Your task to perform on an android device: open app "Microsoft Excel" (install if not already installed) and go to login screen Image 0: 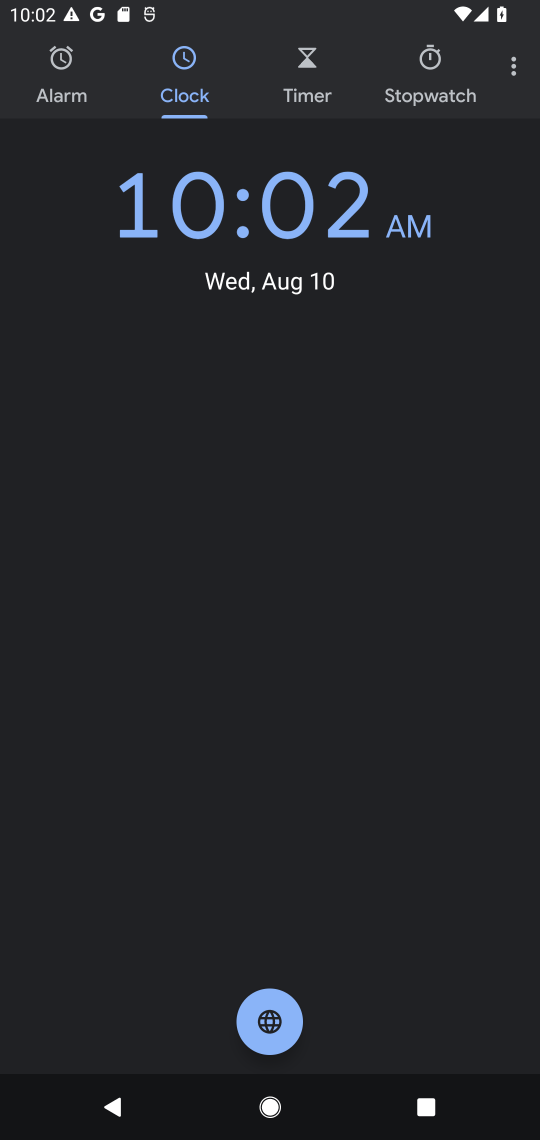
Step 0: press home button
Your task to perform on an android device: open app "Microsoft Excel" (install if not already installed) and go to login screen Image 1: 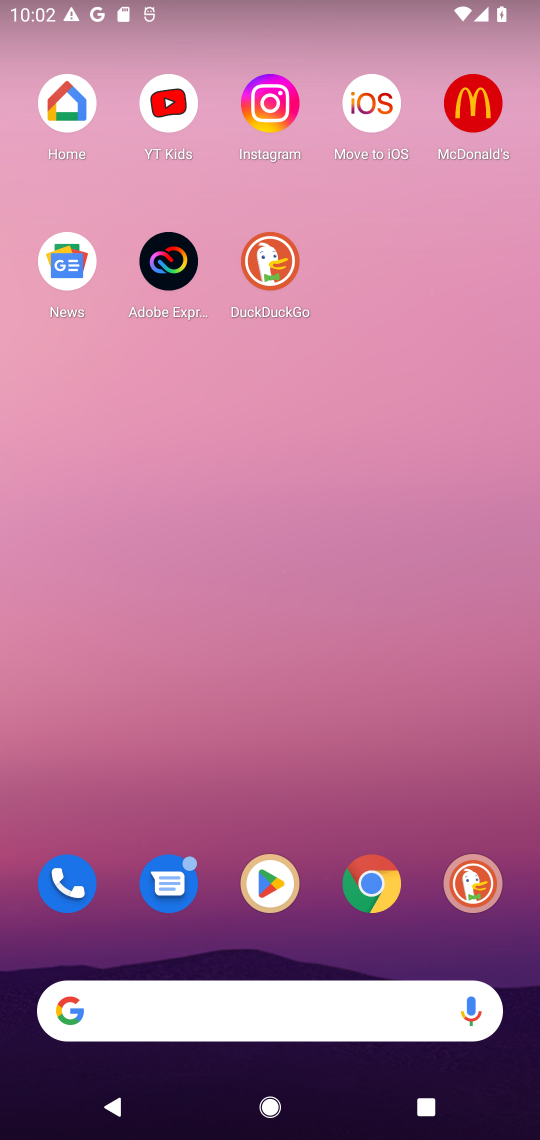
Step 1: drag from (418, 708) to (407, 69)
Your task to perform on an android device: open app "Microsoft Excel" (install if not already installed) and go to login screen Image 2: 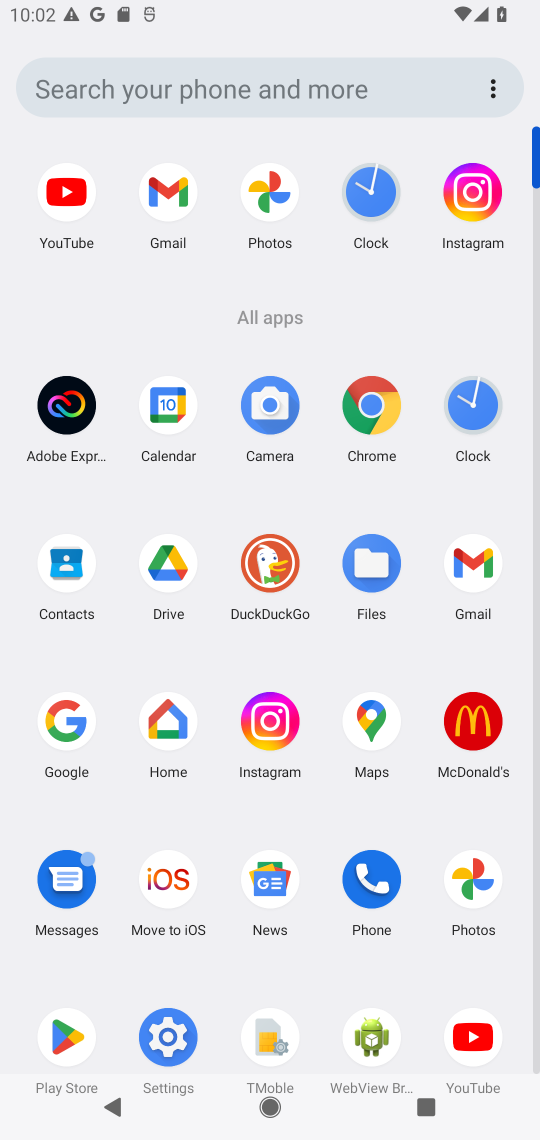
Step 2: click (55, 1030)
Your task to perform on an android device: open app "Microsoft Excel" (install if not already installed) and go to login screen Image 3: 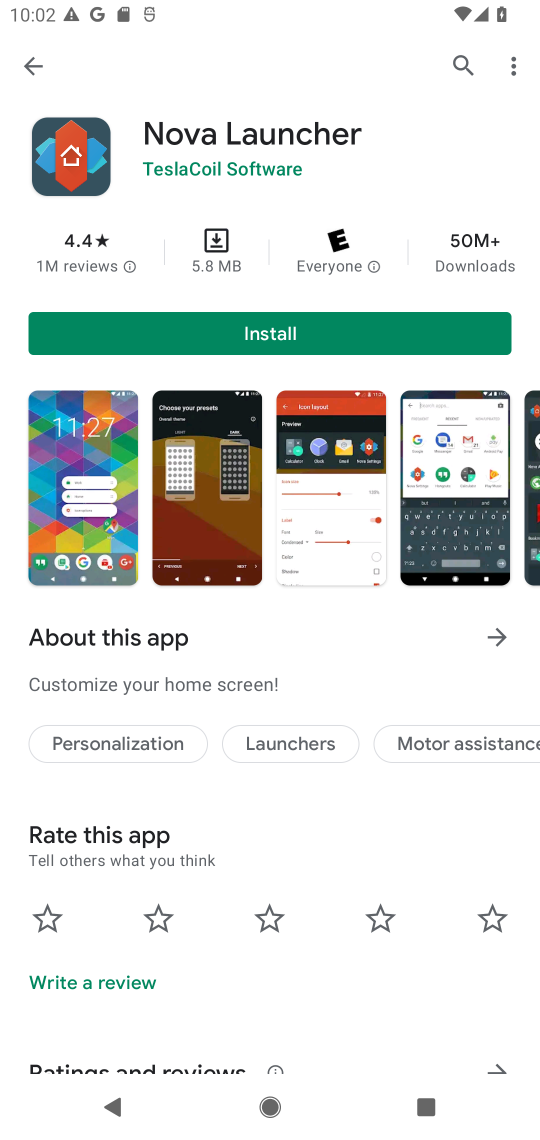
Step 3: click (459, 61)
Your task to perform on an android device: open app "Microsoft Excel" (install if not already installed) and go to login screen Image 4: 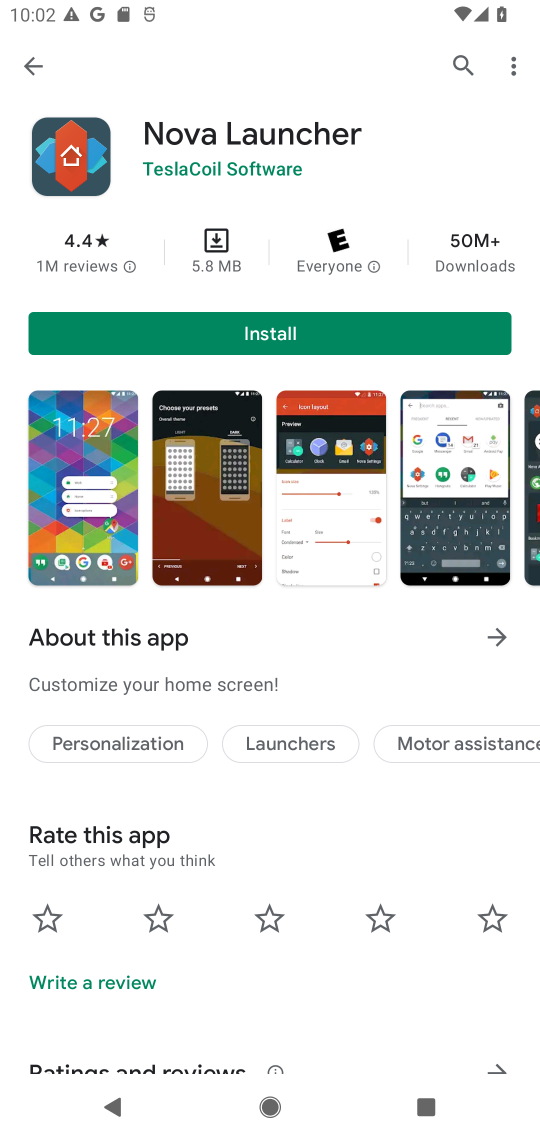
Step 4: press back button
Your task to perform on an android device: open app "Microsoft Excel" (install if not already installed) and go to login screen Image 5: 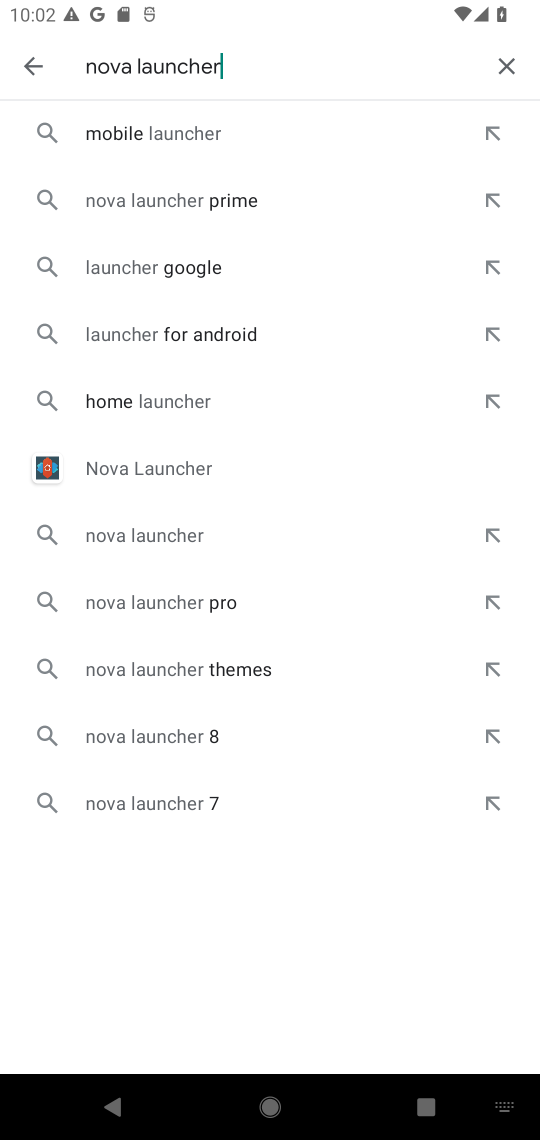
Step 5: click (509, 56)
Your task to perform on an android device: open app "Microsoft Excel" (install if not already installed) and go to login screen Image 6: 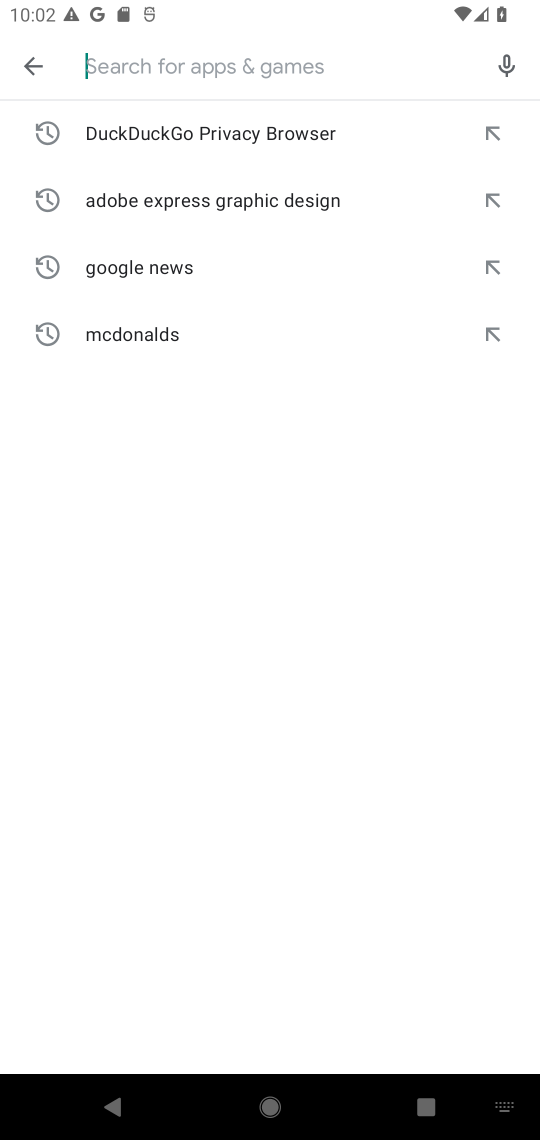
Step 6: press enter
Your task to perform on an android device: open app "Microsoft Excel" (install if not already installed) and go to login screen Image 7: 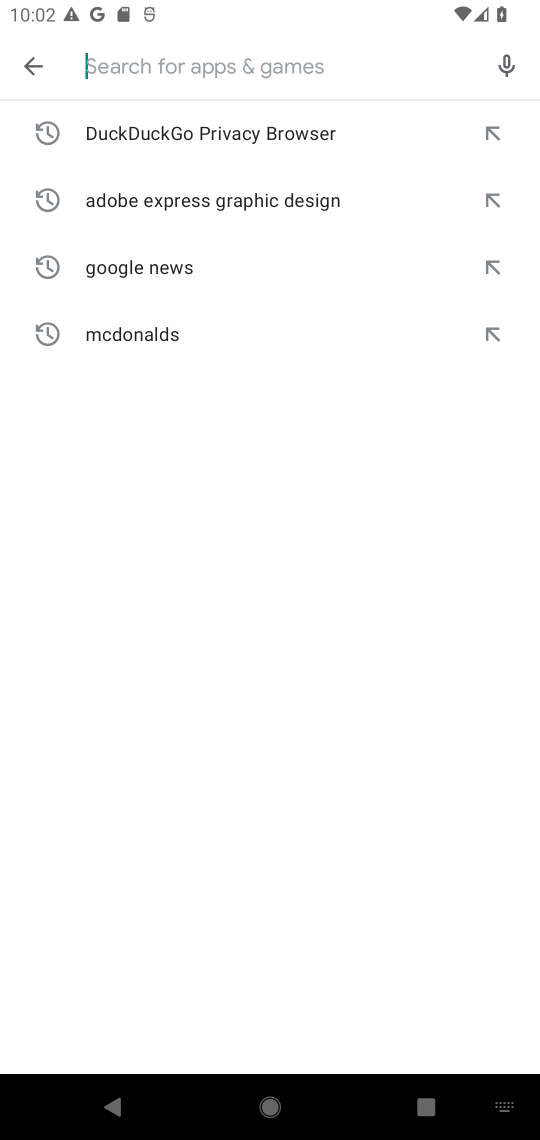
Step 7: type "microsoft excel"
Your task to perform on an android device: open app "Microsoft Excel" (install if not already installed) and go to login screen Image 8: 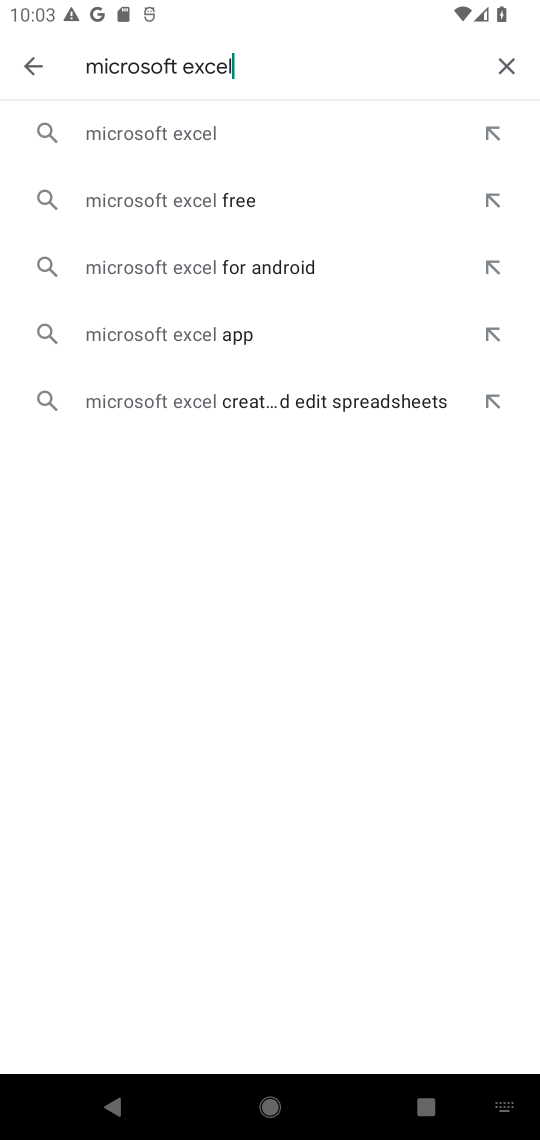
Step 8: click (224, 135)
Your task to perform on an android device: open app "Microsoft Excel" (install if not already installed) and go to login screen Image 9: 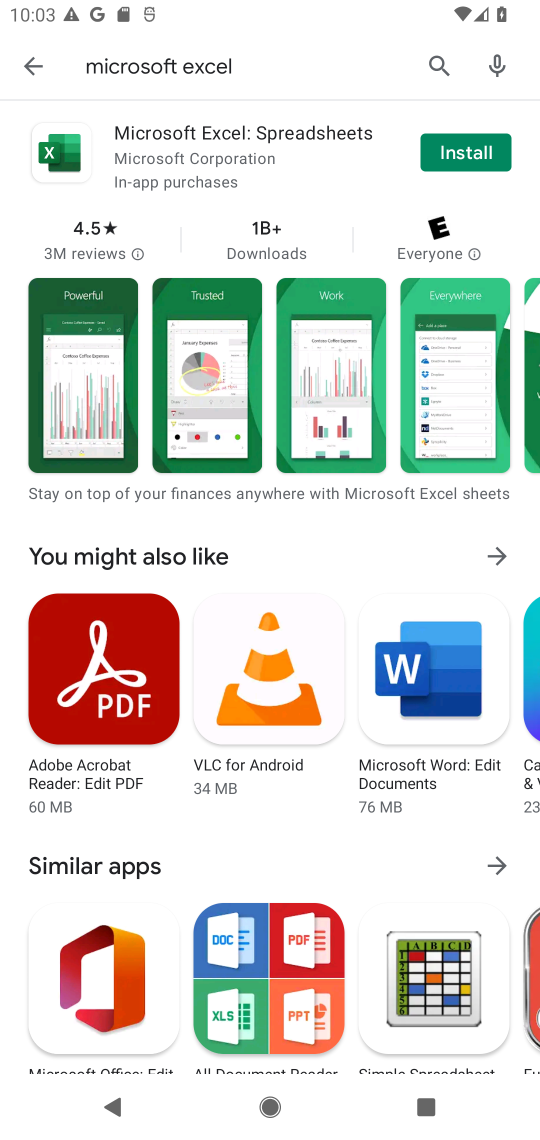
Step 9: click (466, 146)
Your task to perform on an android device: open app "Microsoft Excel" (install if not already installed) and go to login screen Image 10: 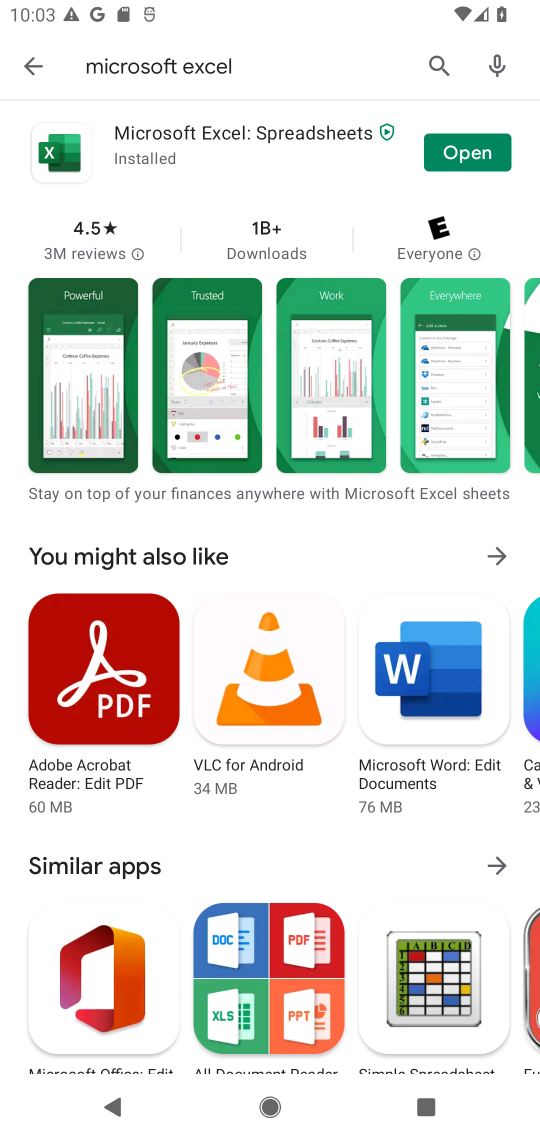
Step 10: click (488, 146)
Your task to perform on an android device: open app "Microsoft Excel" (install if not already installed) and go to login screen Image 11: 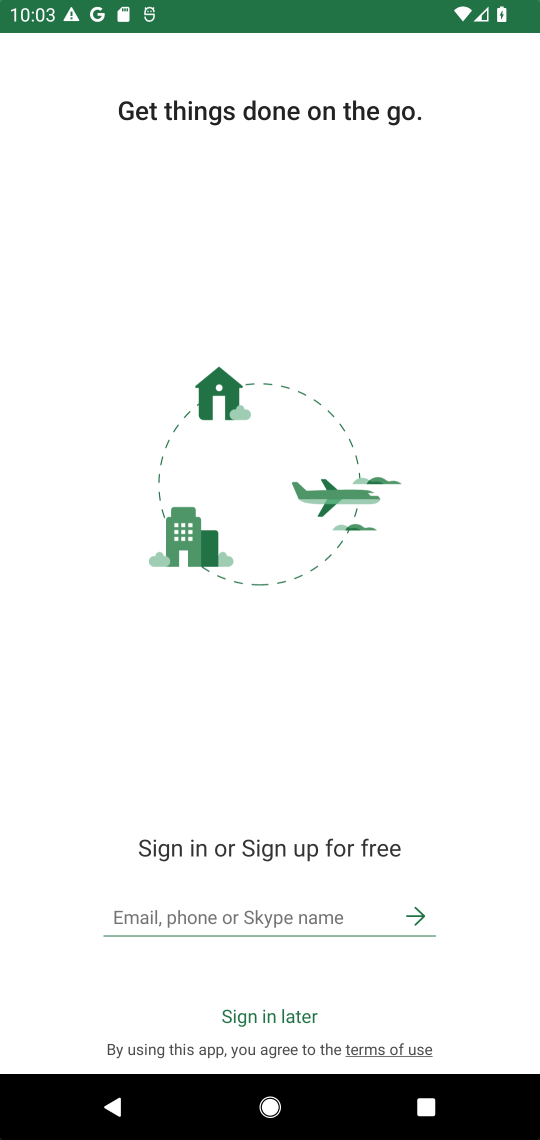
Step 11: task complete